Your task to perform on an android device: change timer sound Image 0: 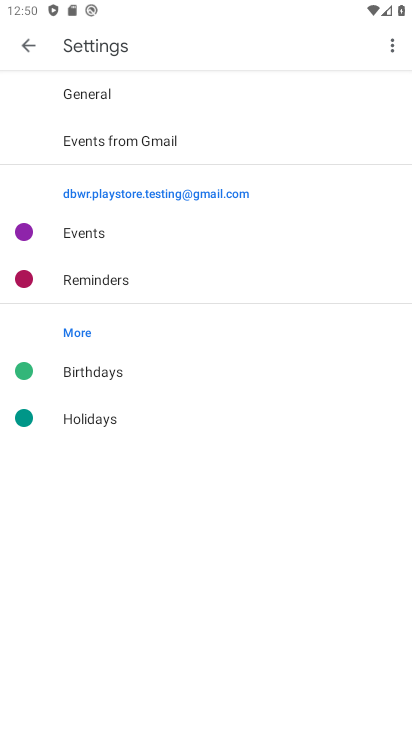
Step 0: click (25, 41)
Your task to perform on an android device: change timer sound Image 1: 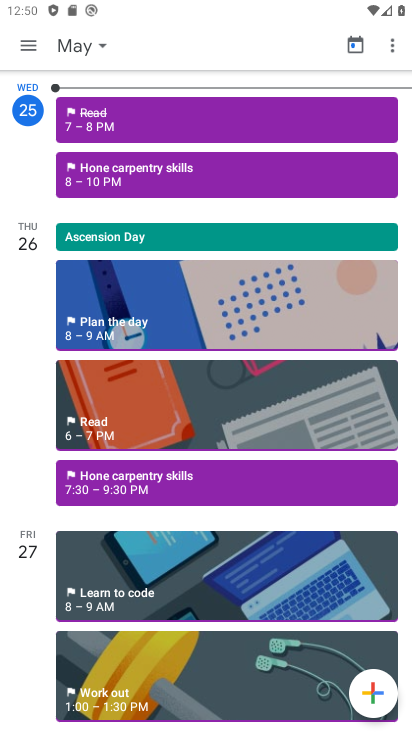
Step 1: press back button
Your task to perform on an android device: change timer sound Image 2: 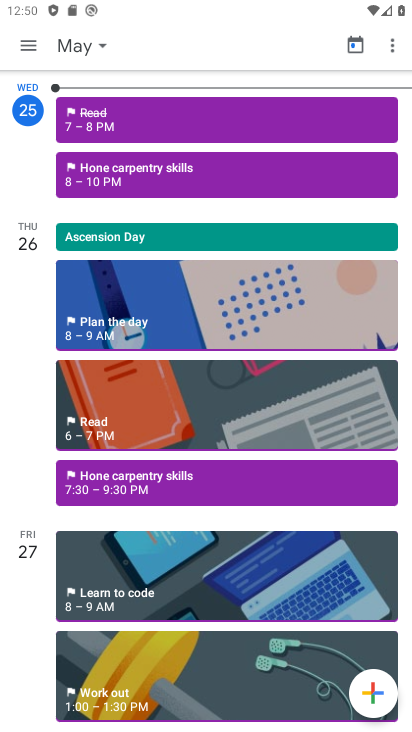
Step 2: press back button
Your task to perform on an android device: change timer sound Image 3: 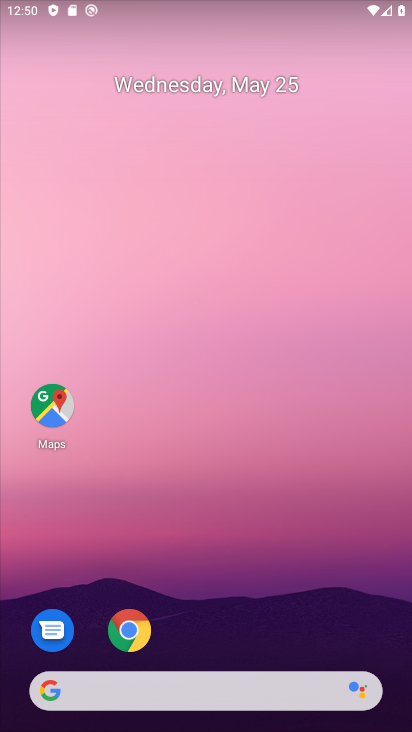
Step 3: drag from (243, 669) to (144, 69)
Your task to perform on an android device: change timer sound Image 4: 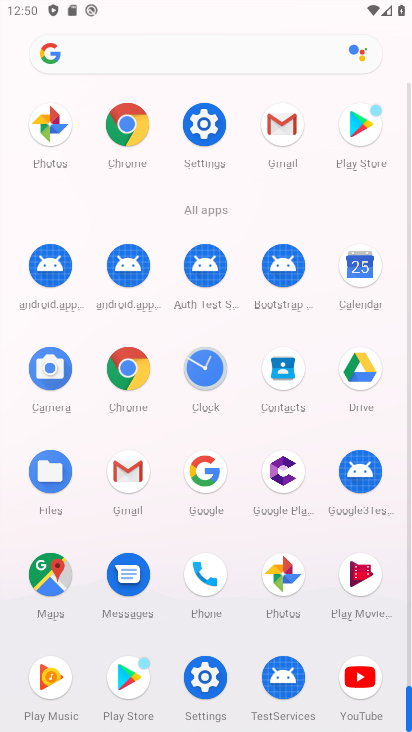
Step 4: drag from (233, 429) to (166, 81)
Your task to perform on an android device: change timer sound Image 5: 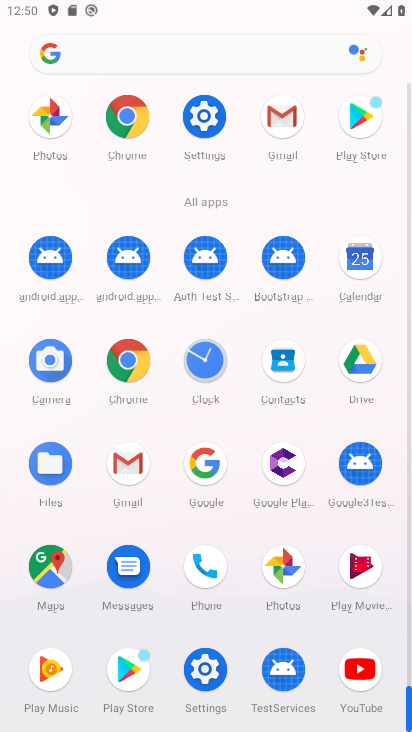
Step 5: click (204, 356)
Your task to perform on an android device: change timer sound Image 6: 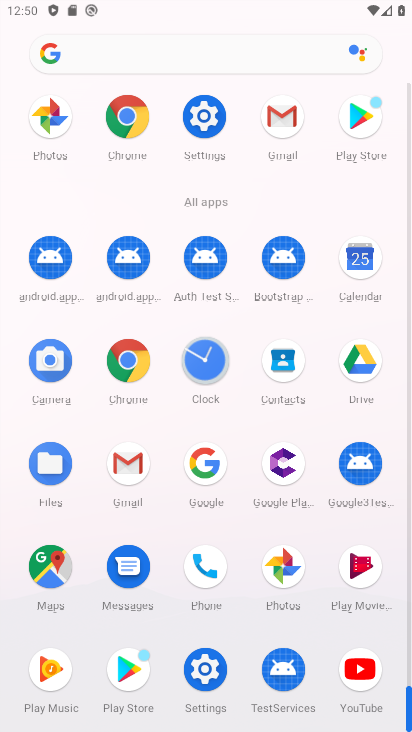
Step 6: click (204, 358)
Your task to perform on an android device: change timer sound Image 7: 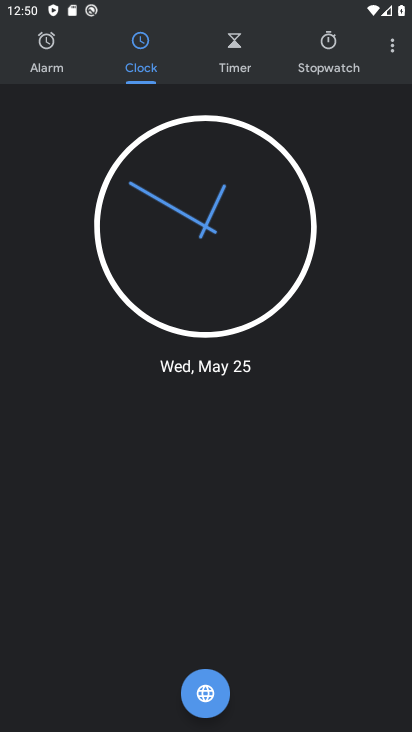
Step 7: click (212, 359)
Your task to perform on an android device: change timer sound Image 8: 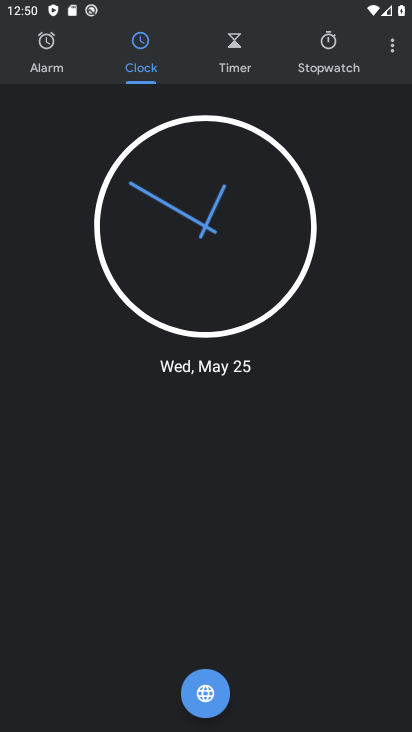
Step 8: click (203, 291)
Your task to perform on an android device: change timer sound Image 9: 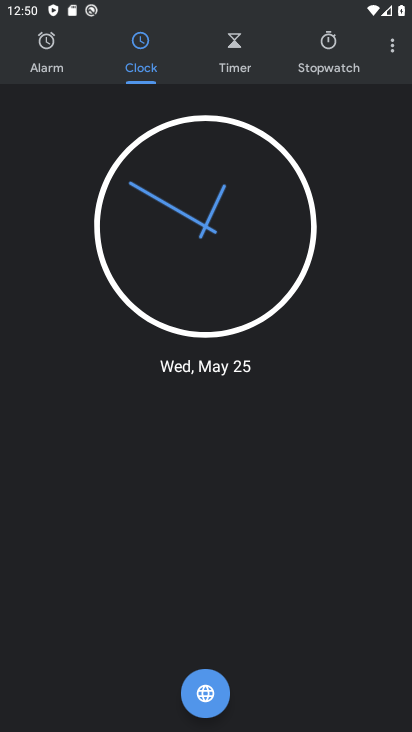
Step 9: click (206, 286)
Your task to perform on an android device: change timer sound Image 10: 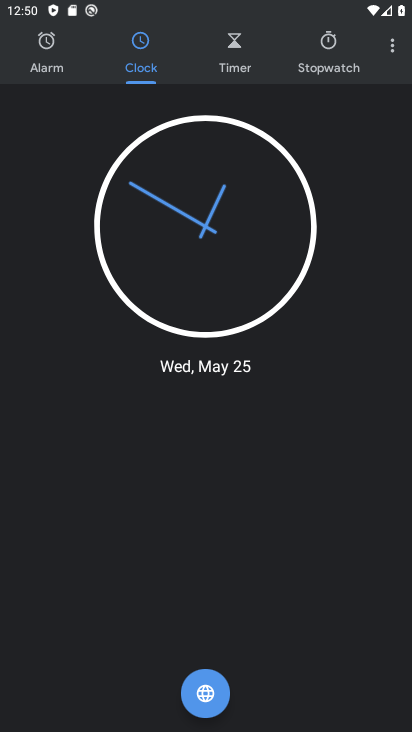
Step 10: click (388, 46)
Your task to perform on an android device: change timer sound Image 11: 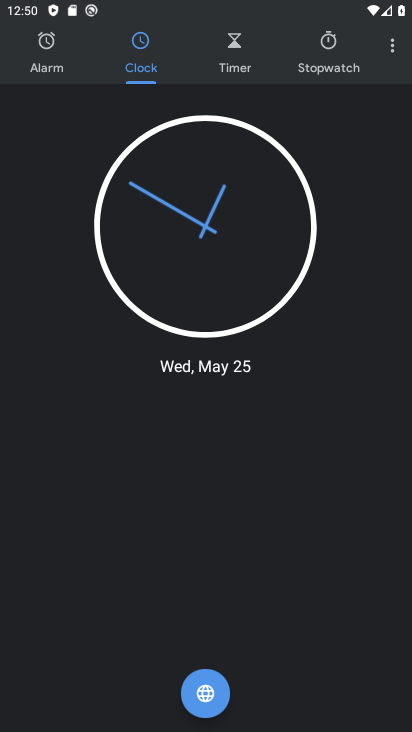
Step 11: click (388, 46)
Your task to perform on an android device: change timer sound Image 12: 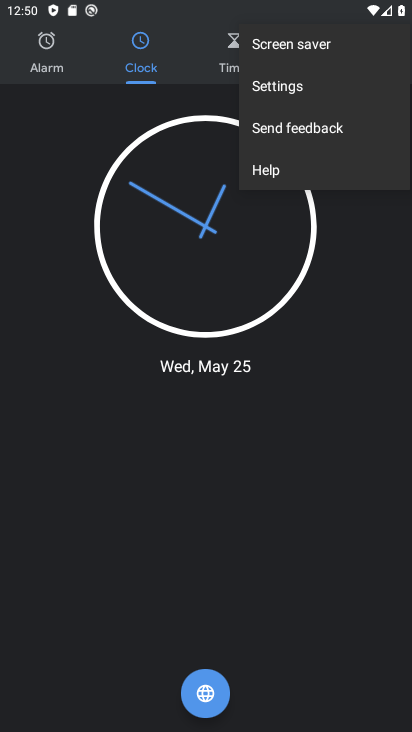
Step 12: click (388, 46)
Your task to perform on an android device: change timer sound Image 13: 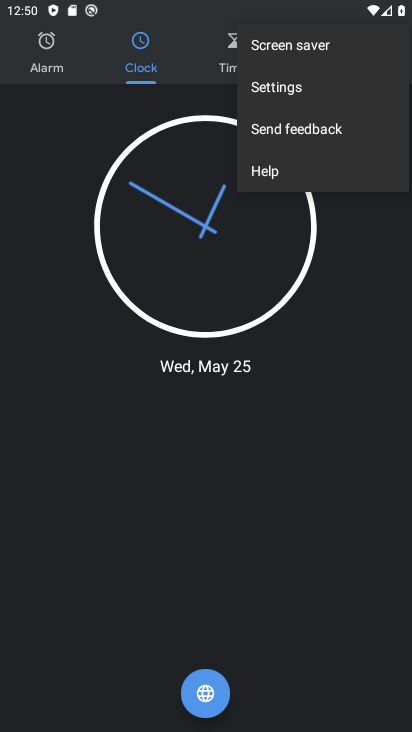
Step 13: drag from (388, 46) to (343, 108)
Your task to perform on an android device: change timer sound Image 14: 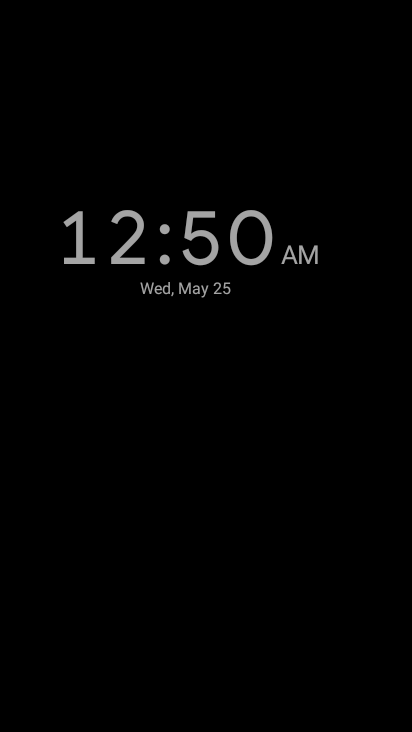
Step 14: press back button
Your task to perform on an android device: change timer sound Image 15: 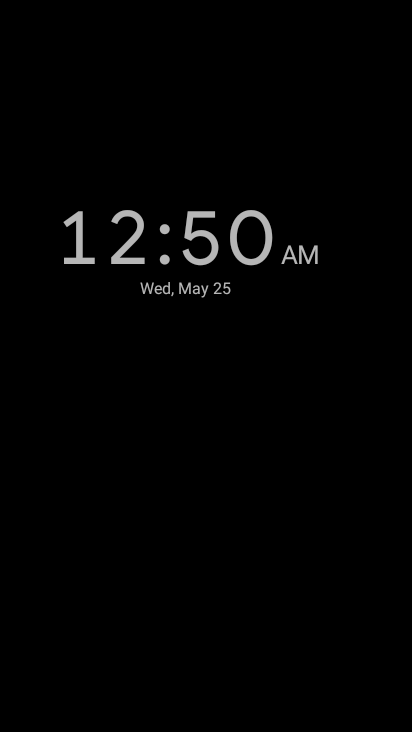
Step 15: press back button
Your task to perform on an android device: change timer sound Image 16: 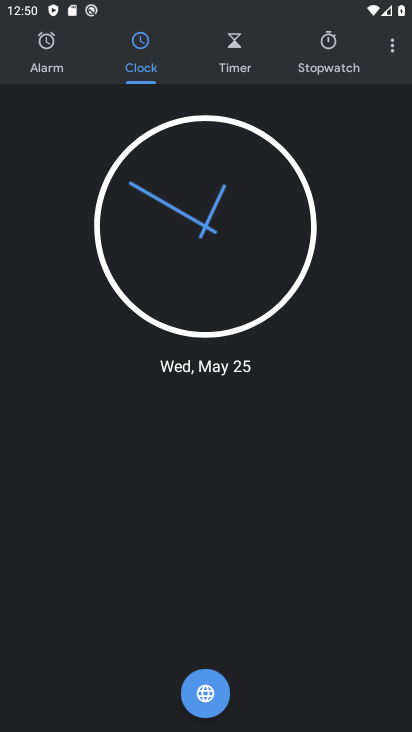
Step 16: press back button
Your task to perform on an android device: change timer sound Image 17: 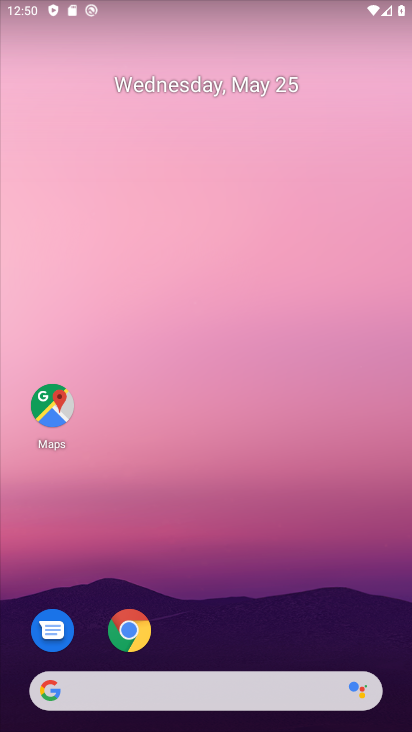
Step 17: drag from (249, 675) to (148, 45)
Your task to perform on an android device: change timer sound Image 18: 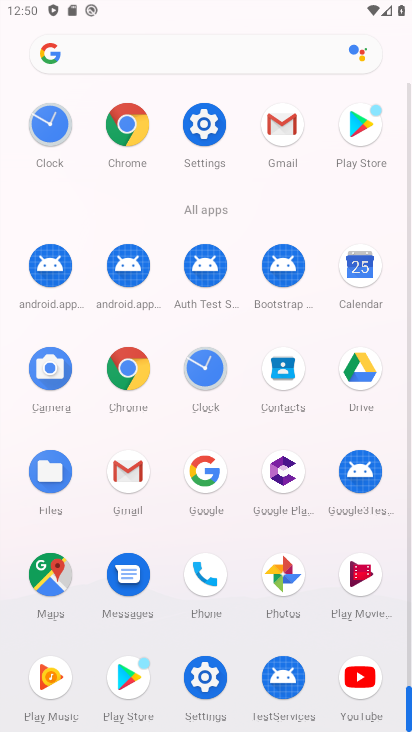
Step 18: drag from (284, 528) to (245, 101)
Your task to perform on an android device: change timer sound Image 19: 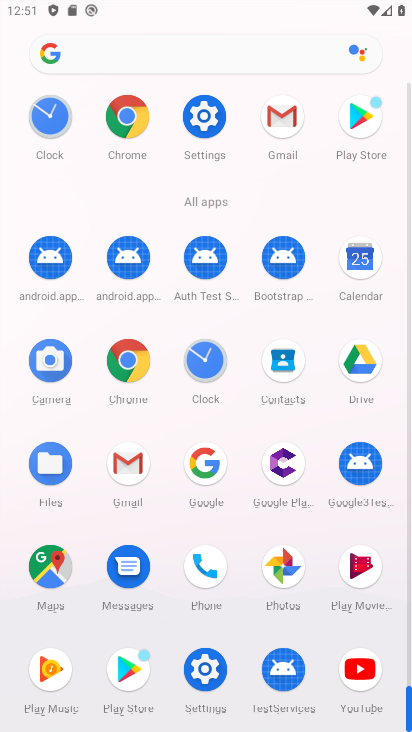
Step 19: click (200, 357)
Your task to perform on an android device: change timer sound Image 20: 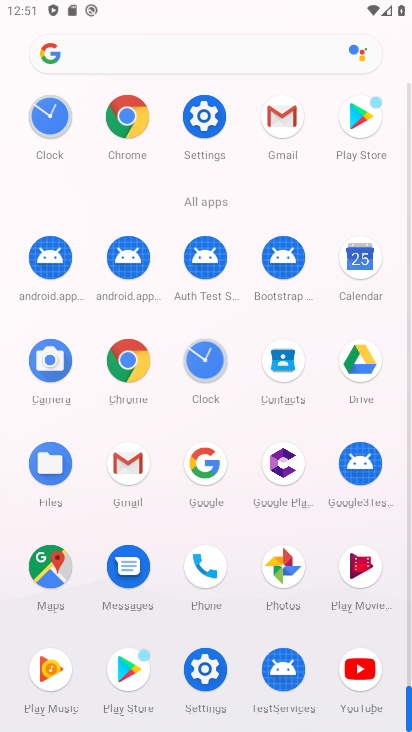
Step 20: click (198, 354)
Your task to perform on an android device: change timer sound Image 21: 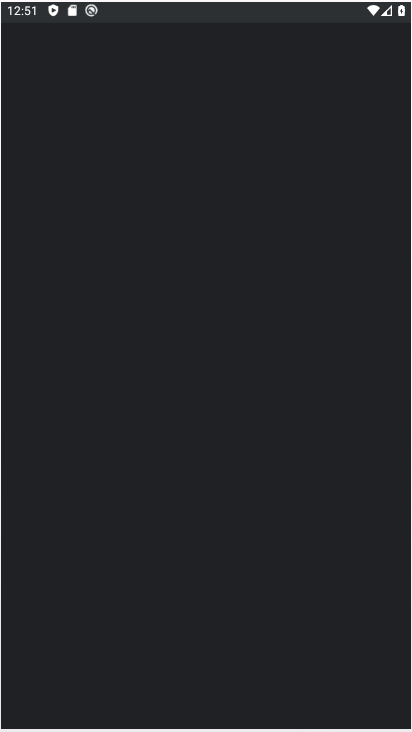
Step 21: click (210, 383)
Your task to perform on an android device: change timer sound Image 22: 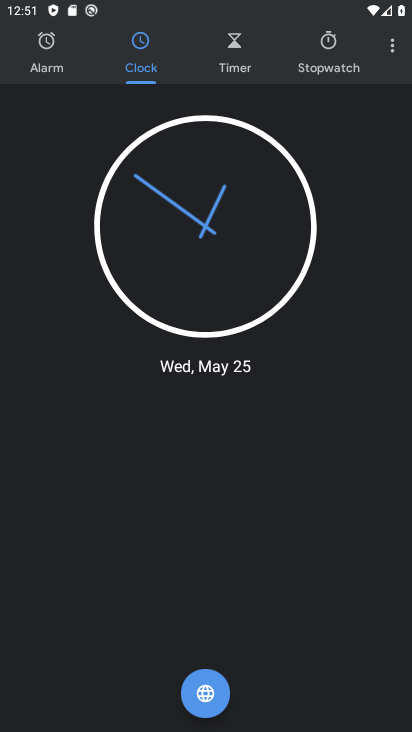
Step 22: click (204, 372)
Your task to perform on an android device: change timer sound Image 23: 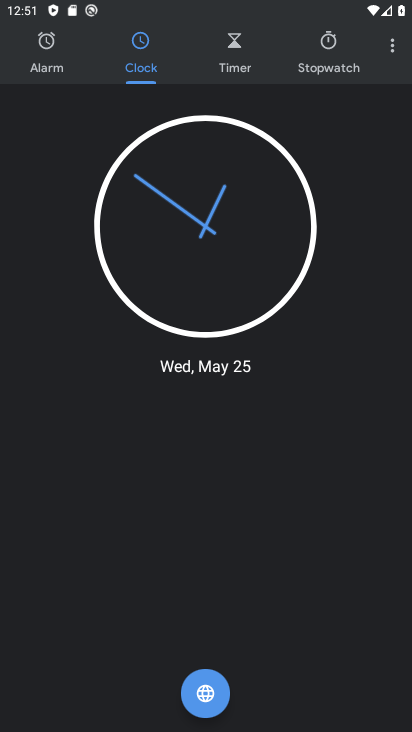
Step 23: click (204, 372)
Your task to perform on an android device: change timer sound Image 24: 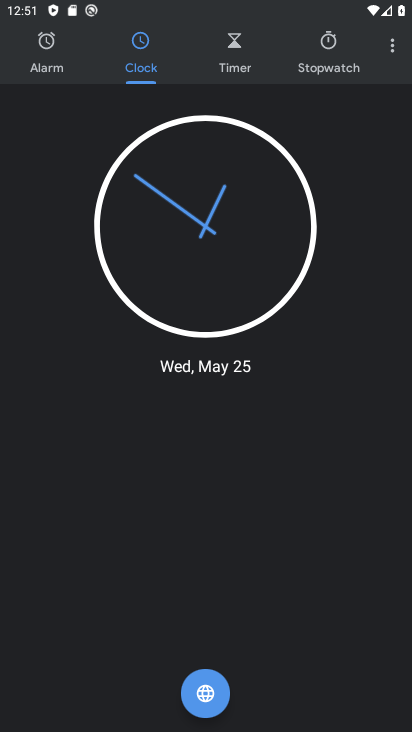
Step 24: click (386, 60)
Your task to perform on an android device: change timer sound Image 25: 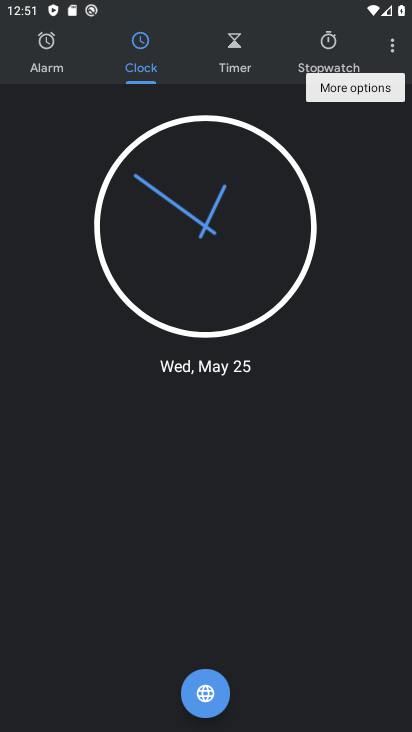
Step 25: click (391, 51)
Your task to perform on an android device: change timer sound Image 26: 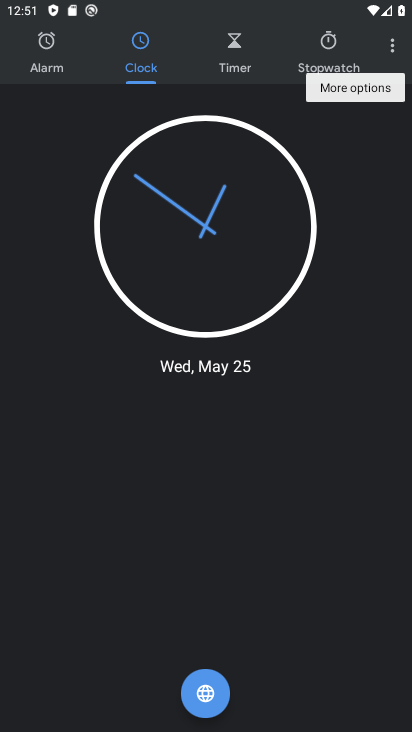
Step 26: click (392, 50)
Your task to perform on an android device: change timer sound Image 27: 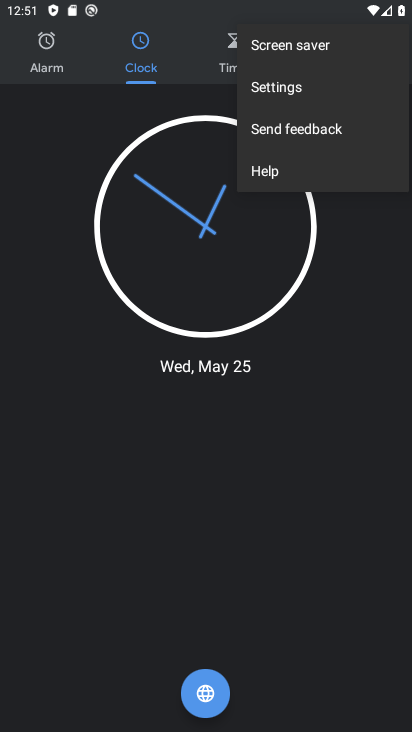
Step 27: click (388, 55)
Your task to perform on an android device: change timer sound Image 28: 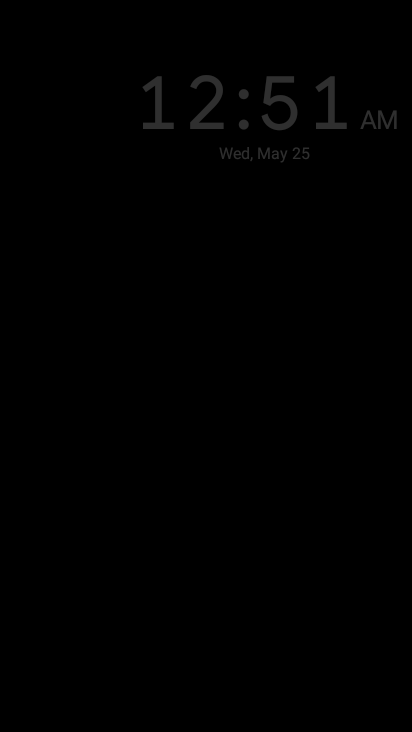
Step 28: click (265, 91)
Your task to perform on an android device: change timer sound Image 29: 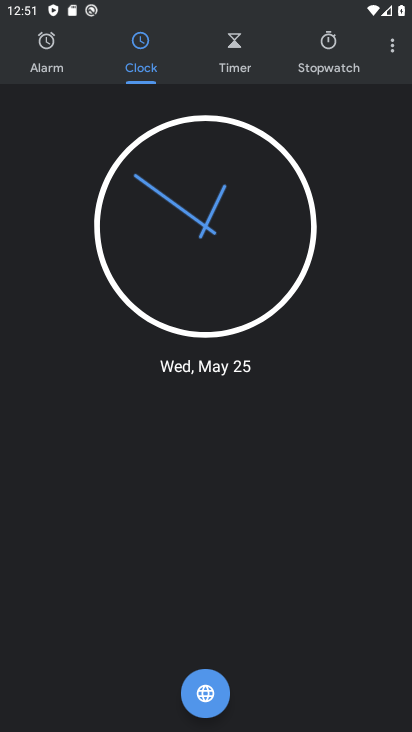
Step 29: drag from (396, 46) to (283, 92)
Your task to perform on an android device: change timer sound Image 30: 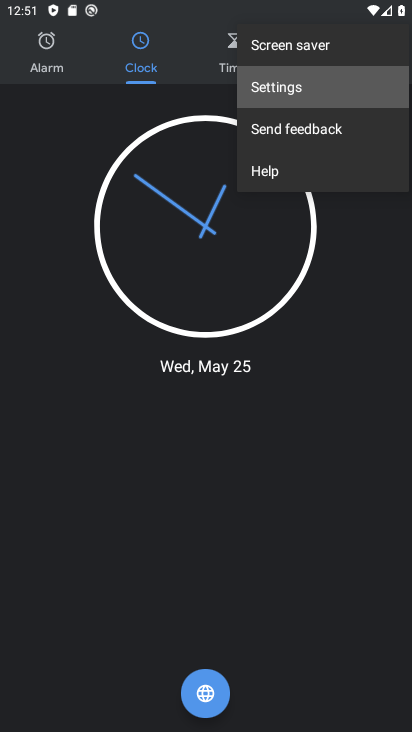
Step 30: click (284, 92)
Your task to perform on an android device: change timer sound Image 31: 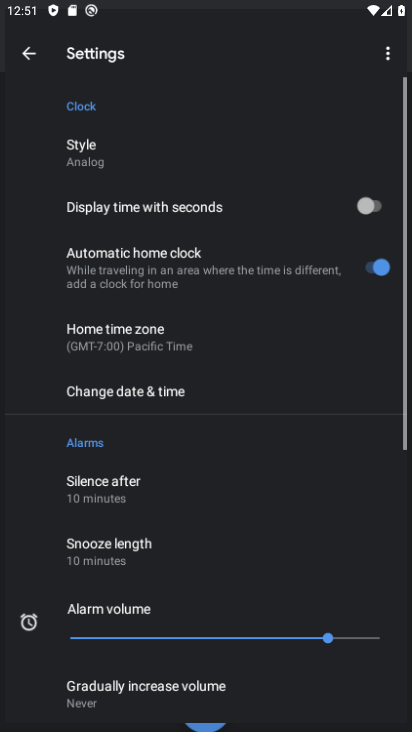
Step 31: click (287, 92)
Your task to perform on an android device: change timer sound Image 32: 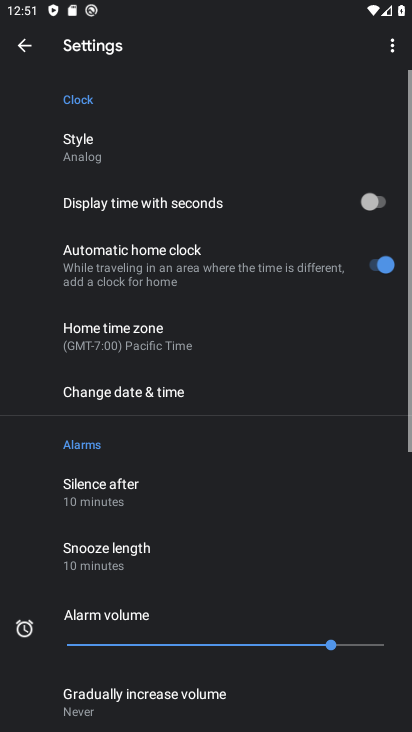
Step 32: click (288, 91)
Your task to perform on an android device: change timer sound Image 33: 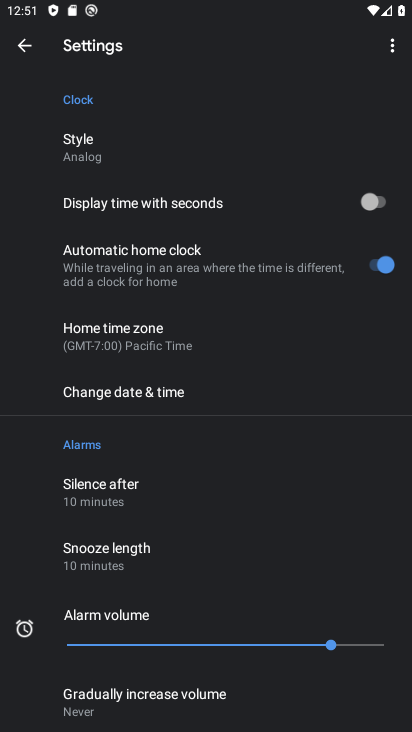
Step 33: drag from (166, 536) to (143, 175)
Your task to perform on an android device: change timer sound Image 34: 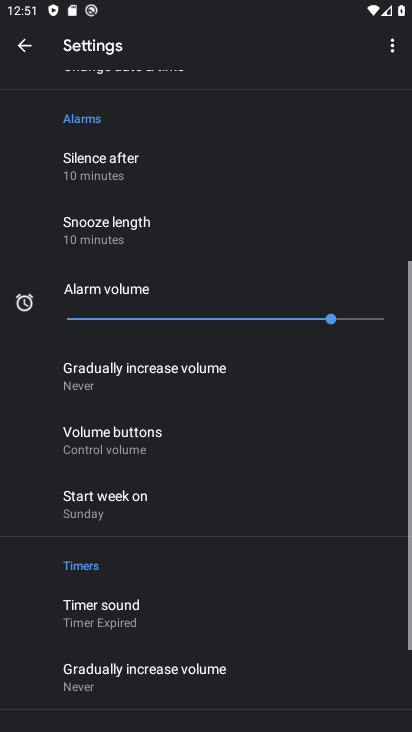
Step 34: drag from (172, 478) to (149, 184)
Your task to perform on an android device: change timer sound Image 35: 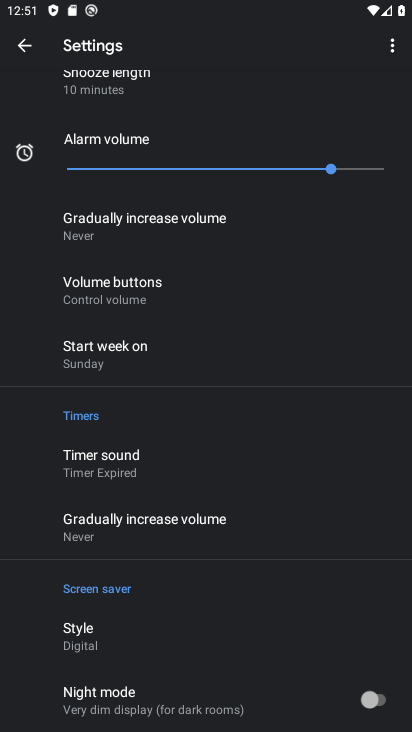
Step 35: click (96, 467)
Your task to perform on an android device: change timer sound Image 36: 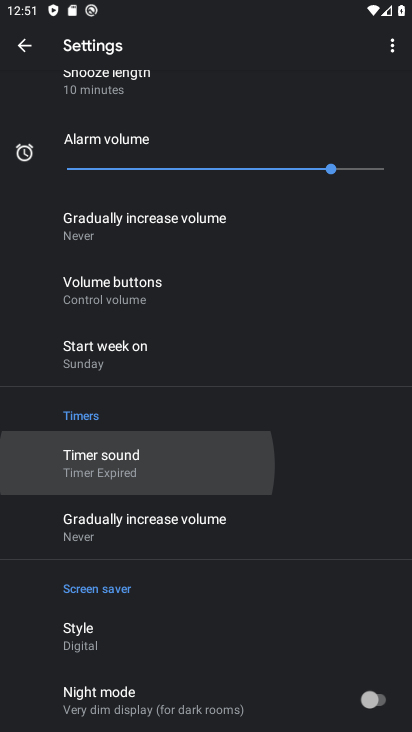
Step 36: click (96, 467)
Your task to perform on an android device: change timer sound Image 37: 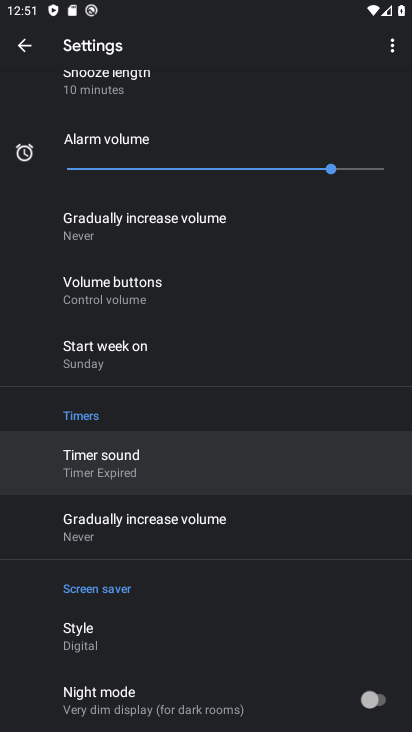
Step 37: click (96, 467)
Your task to perform on an android device: change timer sound Image 38: 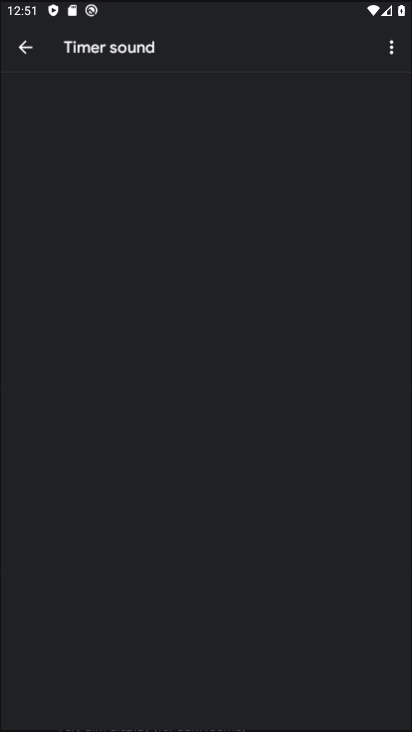
Step 38: click (98, 465)
Your task to perform on an android device: change timer sound Image 39: 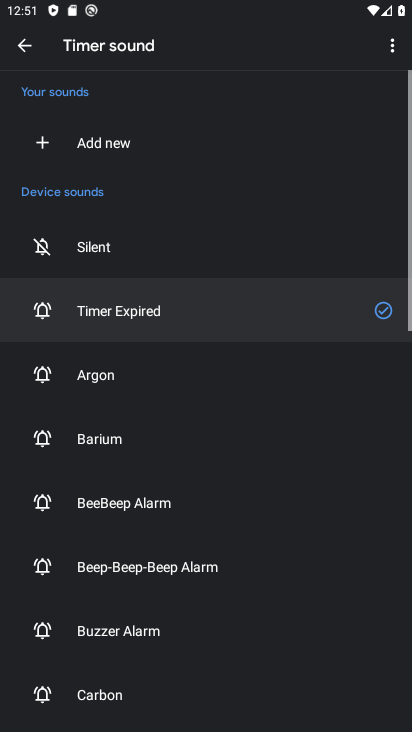
Step 39: click (101, 464)
Your task to perform on an android device: change timer sound Image 40: 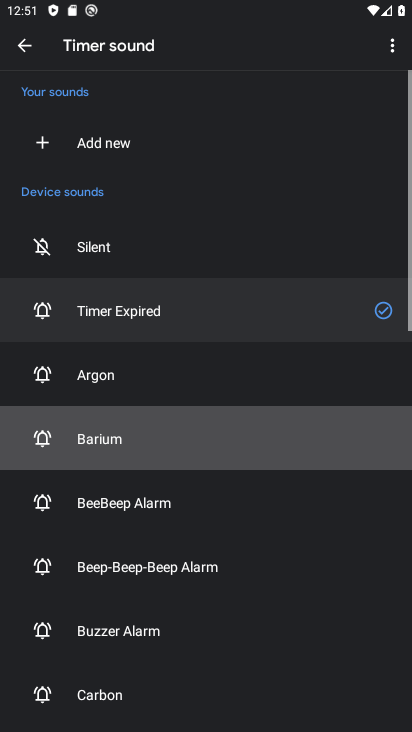
Step 40: click (101, 464)
Your task to perform on an android device: change timer sound Image 41: 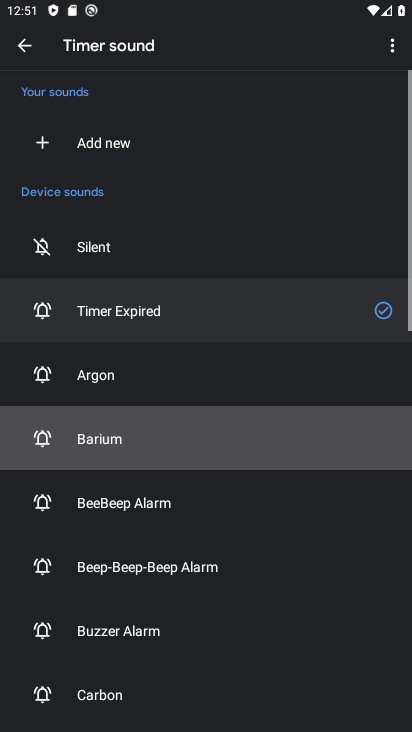
Step 41: click (101, 464)
Your task to perform on an android device: change timer sound Image 42: 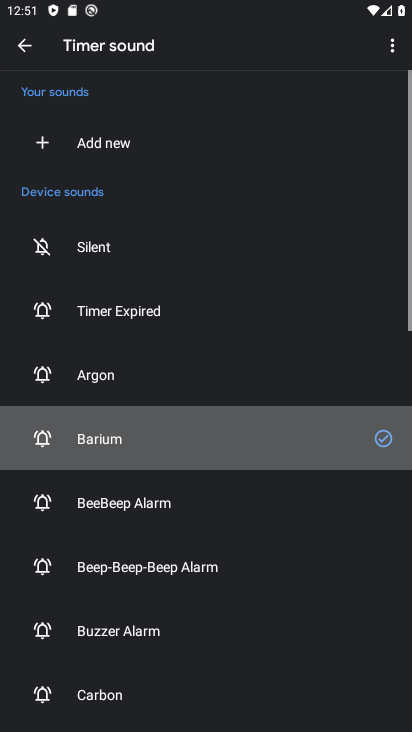
Step 42: click (101, 464)
Your task to perform on an android device: change timer sound Image 43: 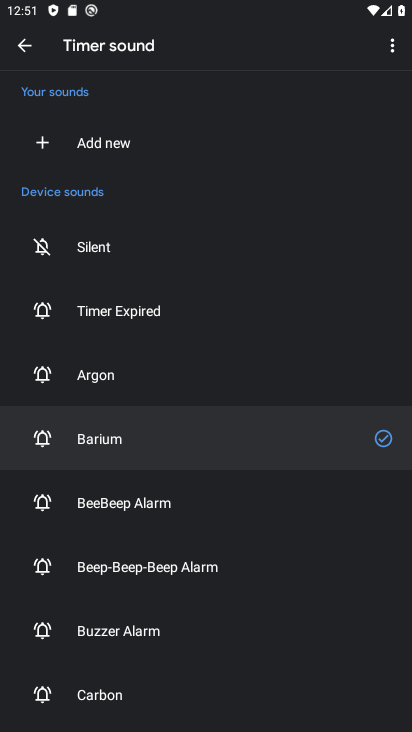
Step 43: press back button
Your task to perform on an android device: change timer sound Image 44: 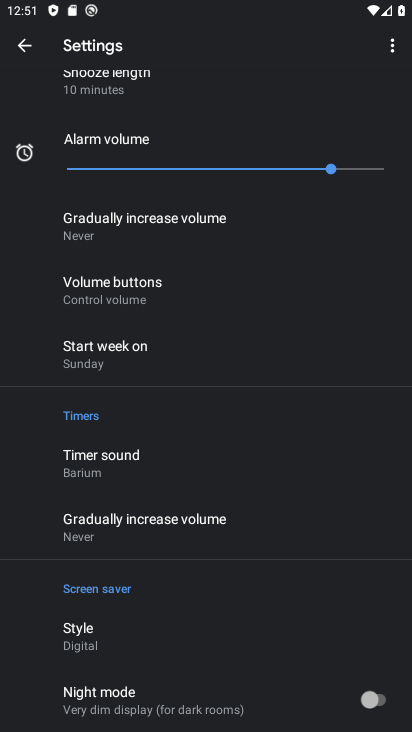
Step 44: press home button
Your task to perform on an android device: change timer sound Image 45: 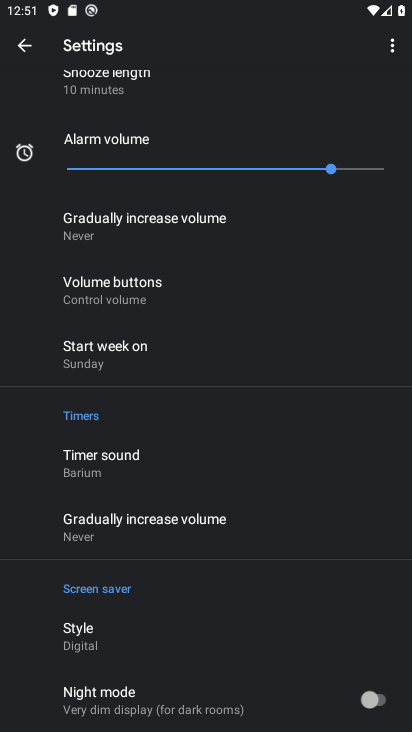
Step 45: press home button
Your task to perform on an android device: change timer sound Image 46: 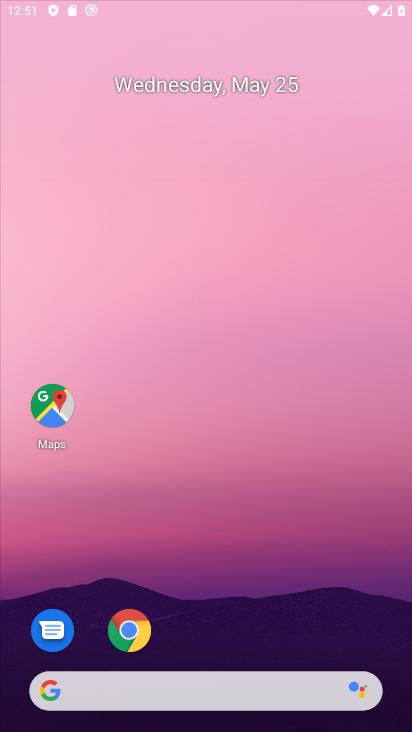
Step 46: press home button
Your task to perform on an android device: change timer sound Image 47: 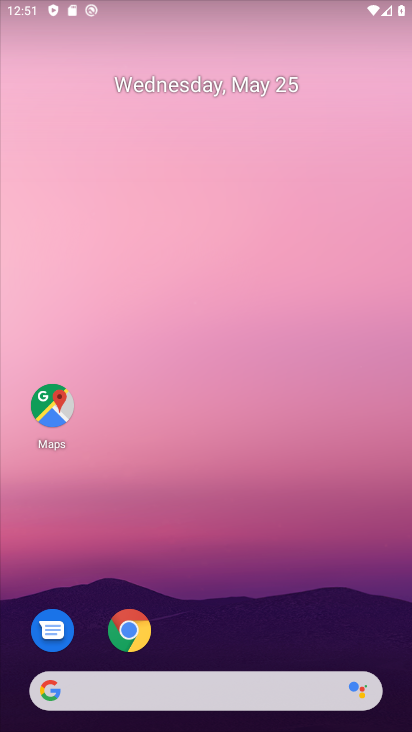
Step 47: press home button
Your task to perform on an android device: change timer sound Image 48: 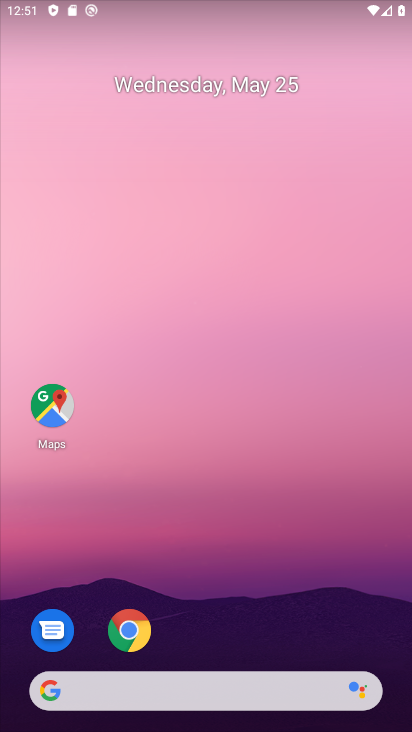
Step 48: press home button
Your task to perform on an android device: change timer sound Image 49: 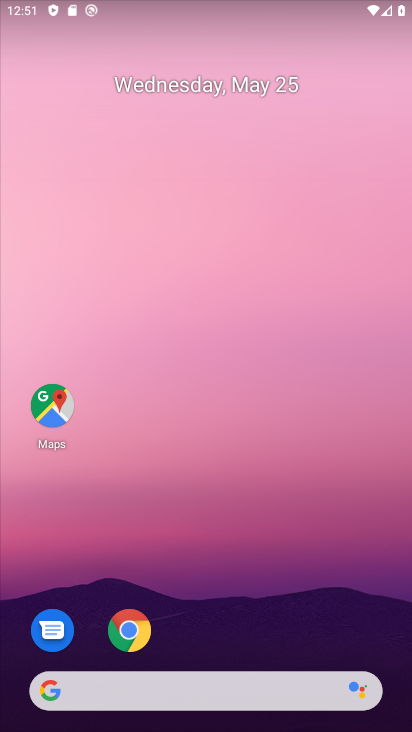
Step 49: drag from (354, 705) to (117, 20)
Your task to perform on an android device: change timer sound Image 50: 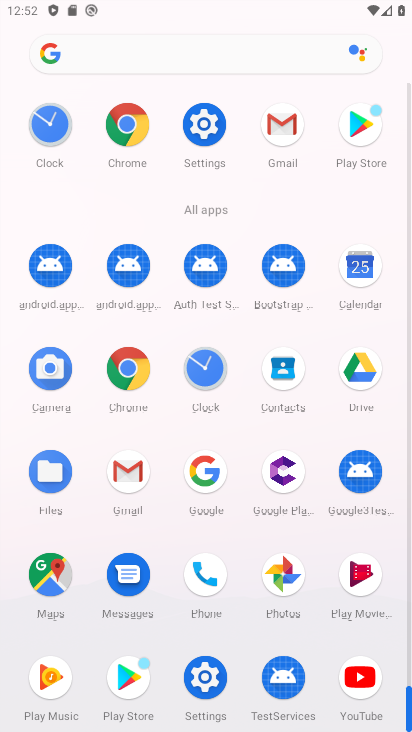
Step 50: click (210, 366)
Your task to perform on an android device: change timer sound Image 51: 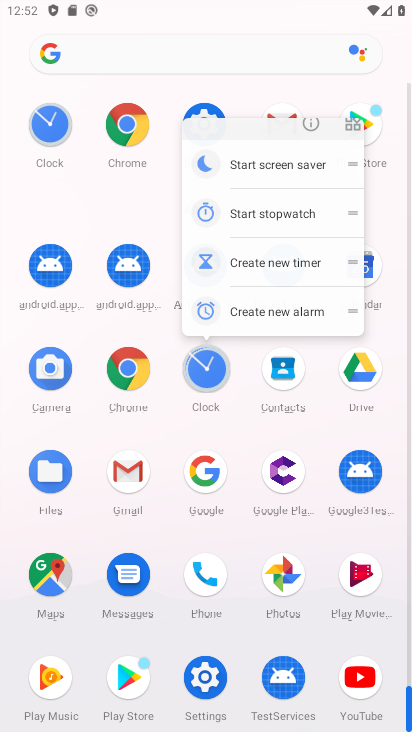
Step 51: click (211, 365)
Your task to perform on an android device: change timer sound Image 52: 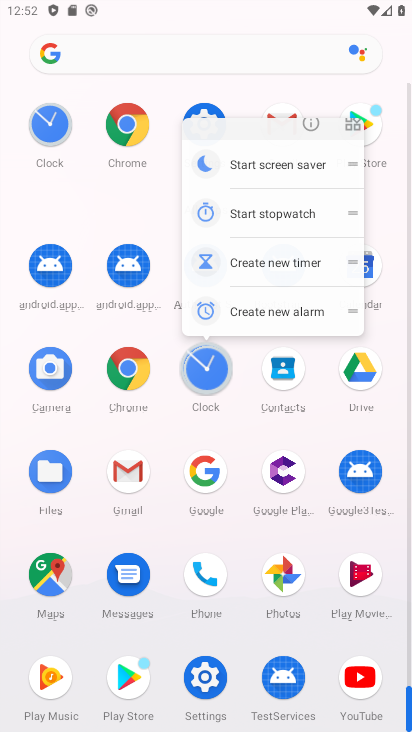
Step 52: click (211, 364)
Your task to perform on an android device: change timer sound Image 53: 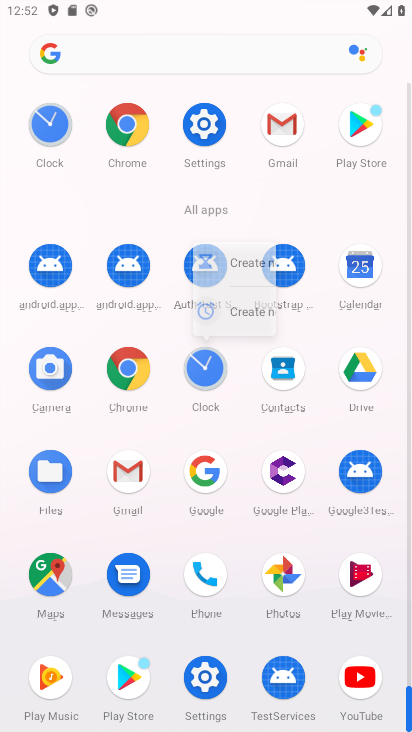
Step 53: click (212, 361)
Your task to perform on an android device: change timer sound Image 54: 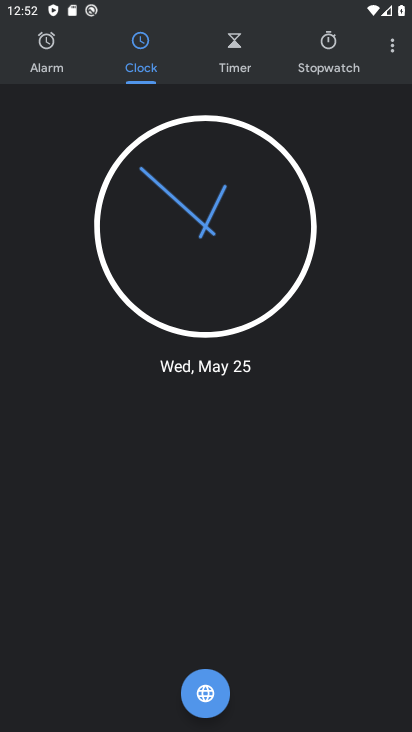
Step 54: click (207, 379)
Your task to perform on an android device: change timer sound Image 55: 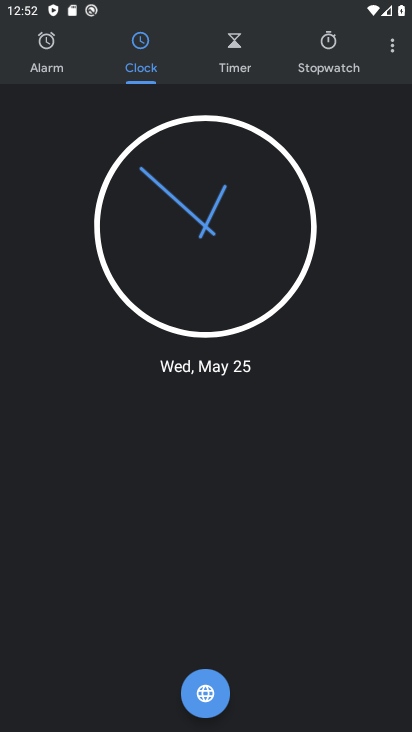
Step 55: click (389, 48)
Your task to perform on an android device: change timer sound Image 56: 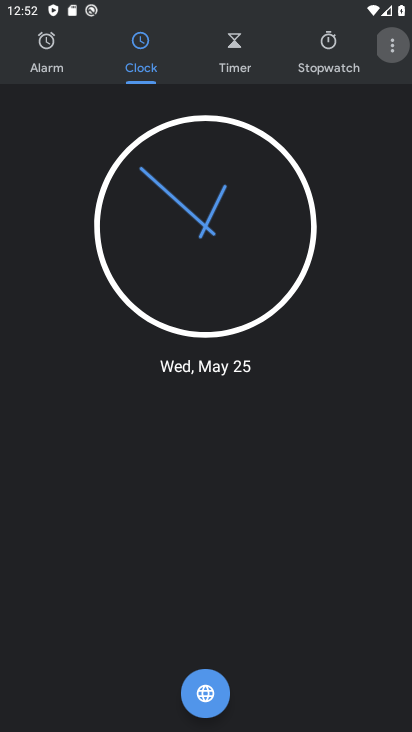
Step 56: click (389, 48)
Your task to perform on an android device: change timer sound Image 57: 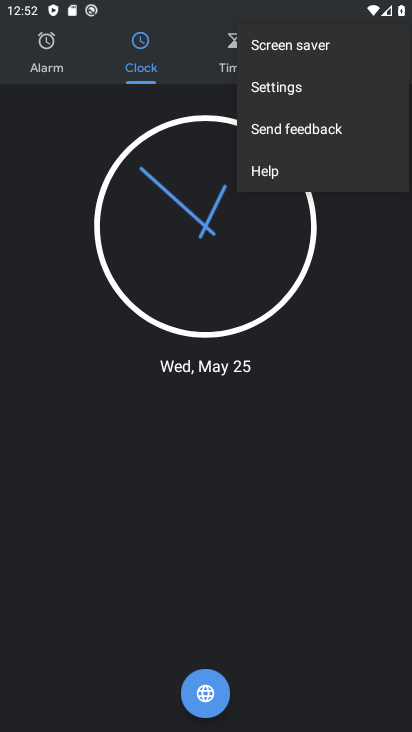
Step 57: click (301, 81)
Your task to perform on an android device: change timer sound Image 58: 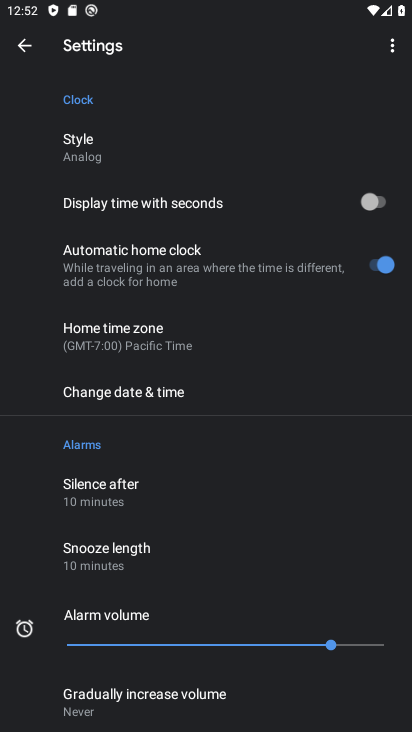
Step 58: drag from (93, 338) to (155, 162)
Your task to perform on an android device: change timer sound Image 59: 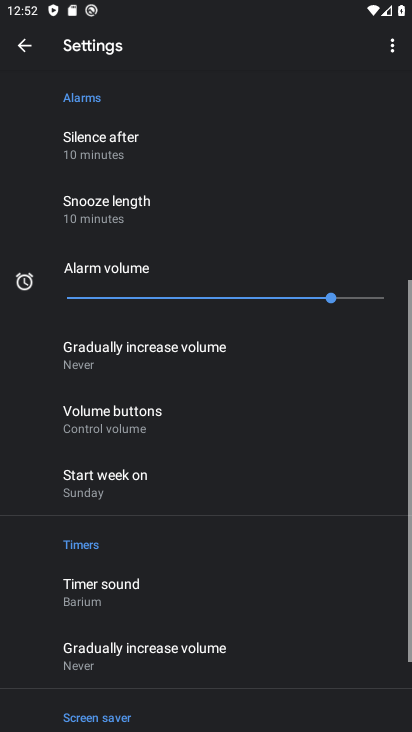
Step 59: drag from (201, 617) to (256, 223)
Your task to perform on an android device: change timer sound Image 60: 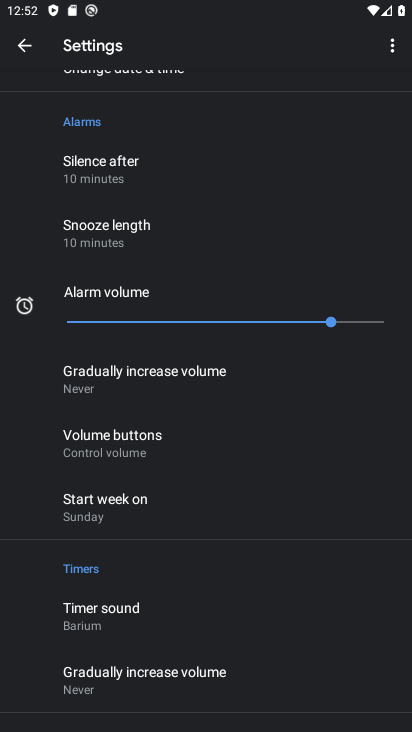
Step 60: click (91, 615)
Your task to perform on an android device: change timer sound Image 61: 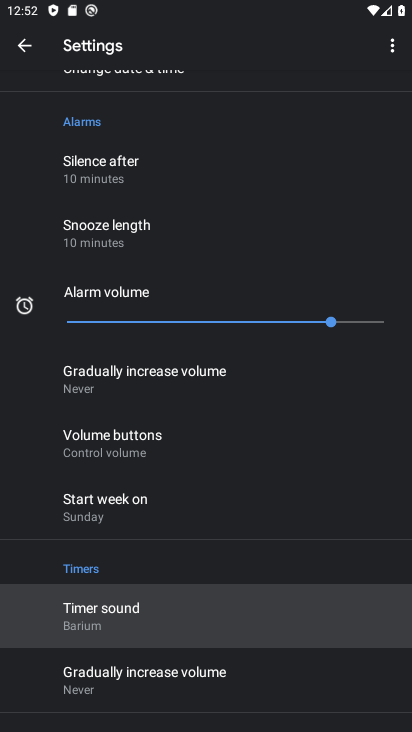
Step 61: click (90, 616)
Your task to perform on an android device: change timer sound Image 62: 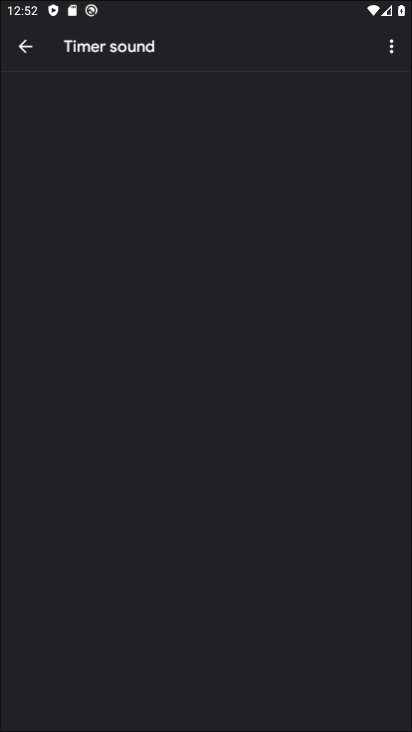
Step 62: click (90, 616)
Your task to perform on an android device: change timer sound Image 63: 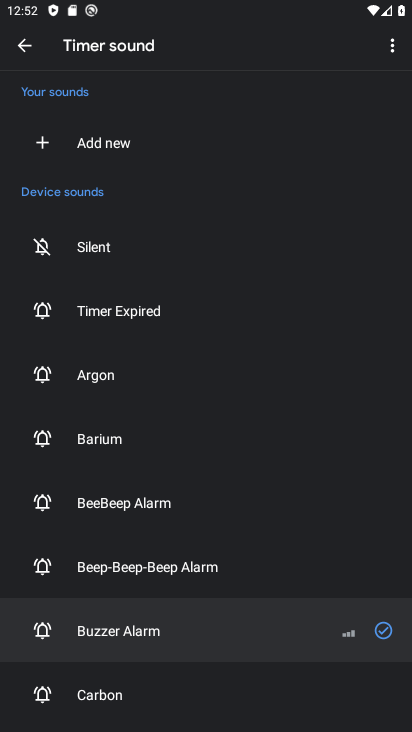
Step 63: task complete